Your task to perform on an android device: turn off notifications settings in the gmail app Image 0: 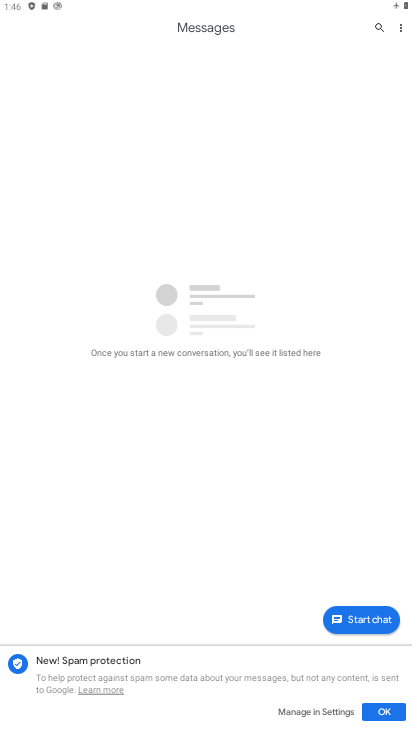
Step 0: drag from (234, 425) to (284, 134)
Your task to perform on an android device: turn off notifications settings in the gmail app Image 1: 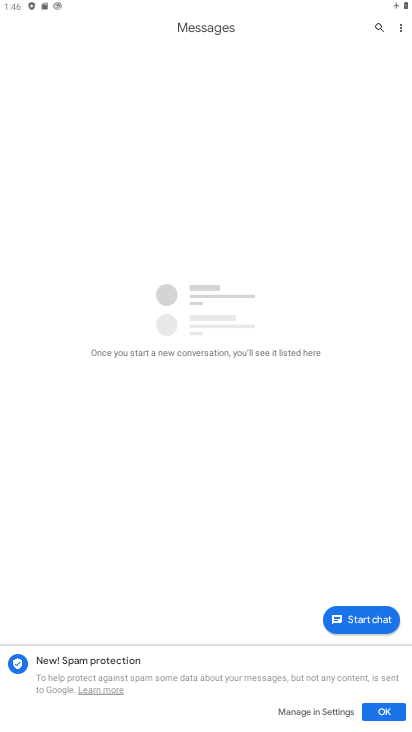
Step 1: press home button
Your task to perform on an android device: turn off notifications settings in the gmail app Image 2: 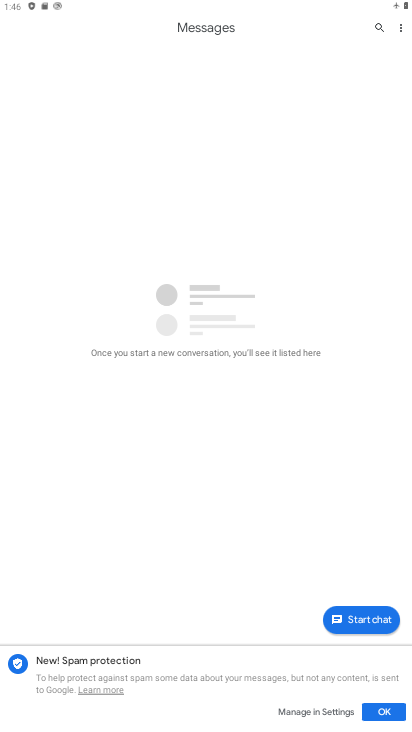
Step 2: press home button
Your task to perform on an android device: turn off notifications settings in the gmail app Image 3: 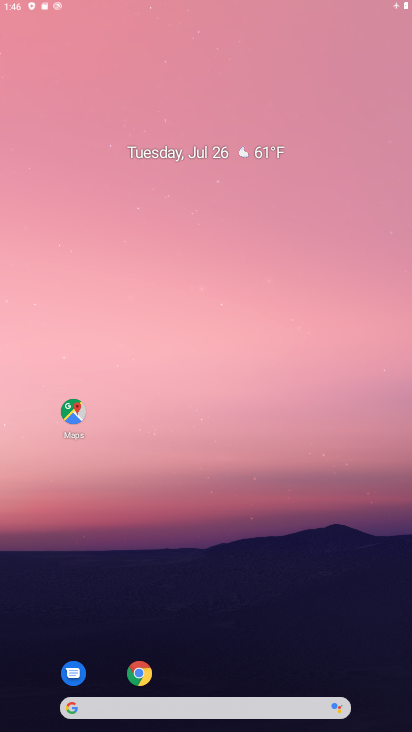
Step 3: press home button
Your task to perform on an android device: turn off notifications settings in the gmail app Image 4: 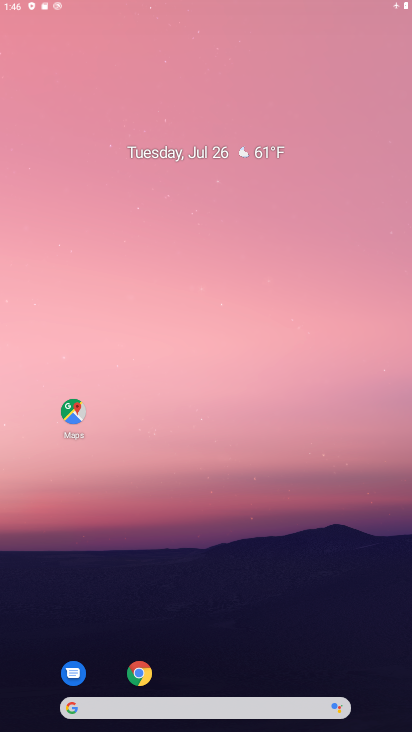
Step 4: click (338, 24)
Your task to perform on an android device: turn off notifications settings in the gmail app Image 5: 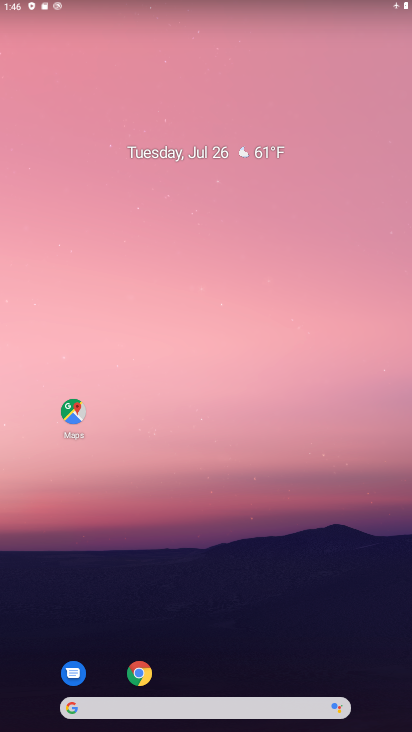
Step 5: drag from (188, 662) to (265, 125)
Your task to perform on an android device: turn off notifications settings in the gmail app Image 6: 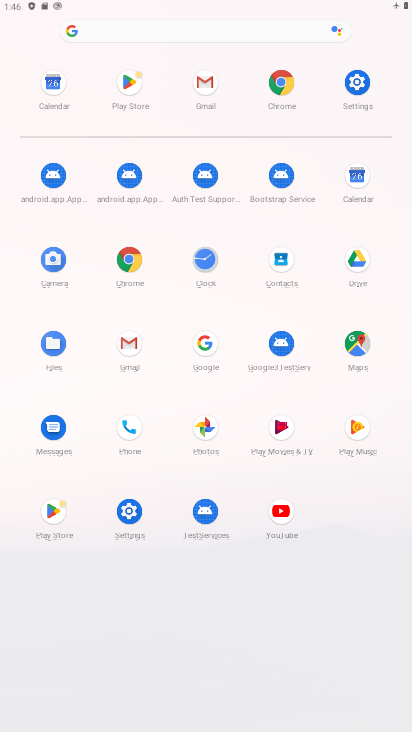
Step 6: click (120, 337)
Your task to perform on an android device: turn off notifications settings in the gmail app Image 7: 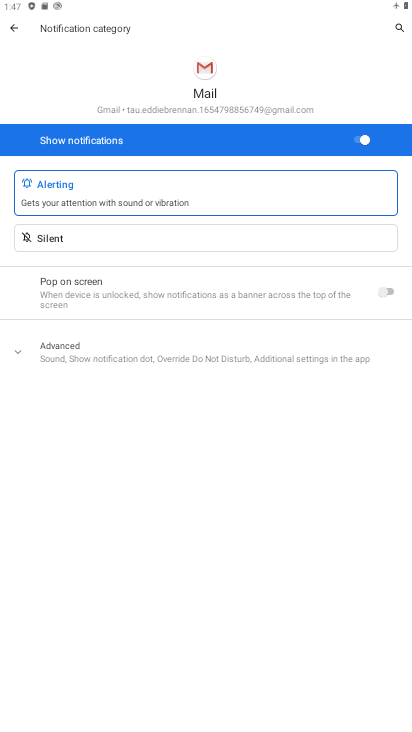
Step 7: drag from (232, 494) to (280, 225)
Your task to perform on an android device: turn off notifications settings in the gmail app Image 8: 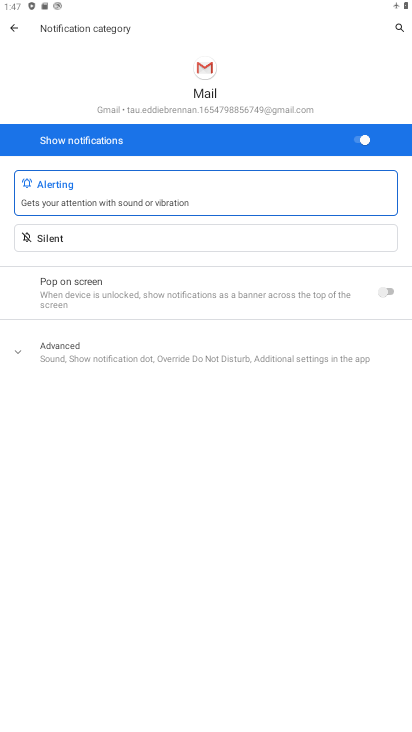
Step 8: click (362, 140)
Your task to perform on an android device: turn off notifications settings in the gmail app Image 9: 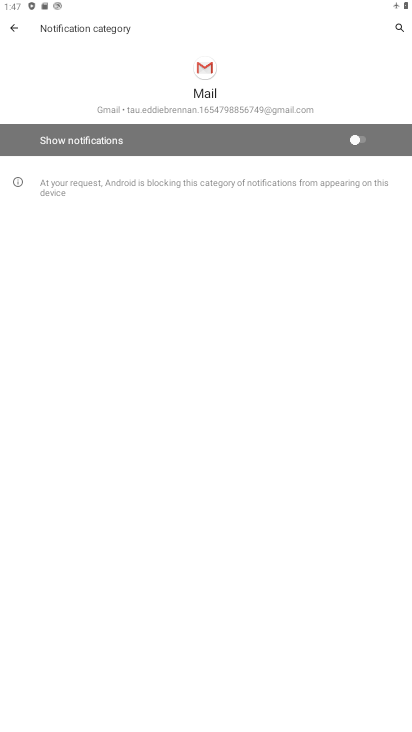
Step 9: task complete